Your task to perform on an android device: turn off airplane mode Image 0: 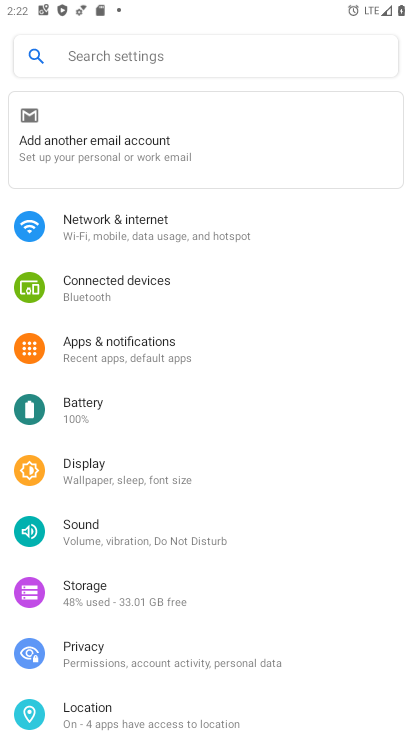
Step 0: press home button
Your task to perform on an android device: turn off airplane mode Image 1: 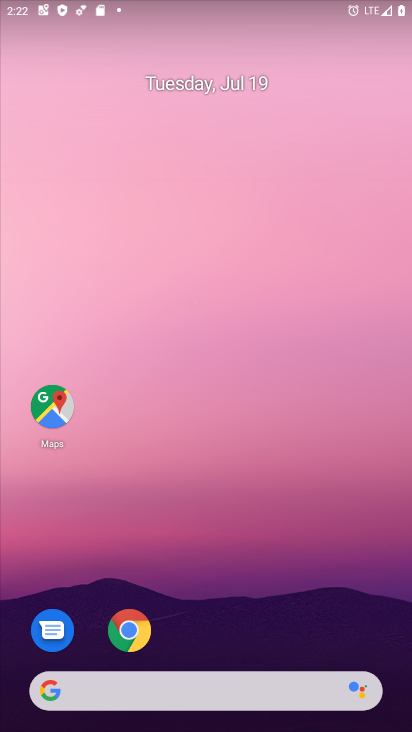
Step 1: task complete